Your task to perform on an android device: What's the weather today? Image 0: 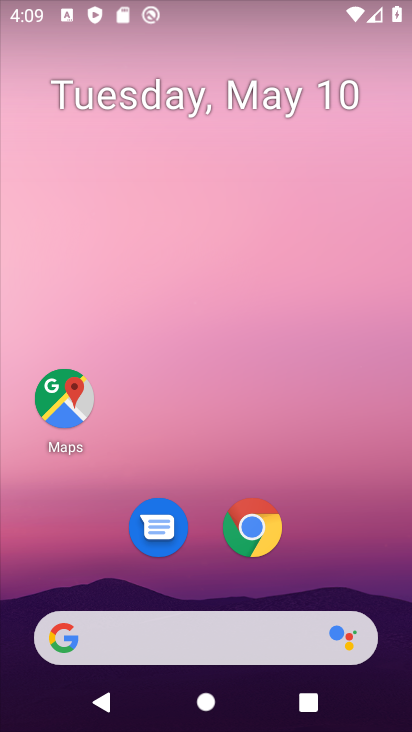
Step 0: click (94, 629)
Your task to perform on an android device: What's the weather today? Image 1: 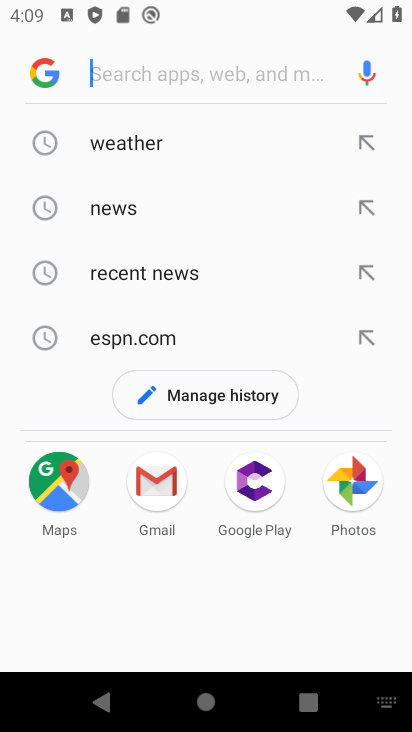
Step 1: click (116, 133)
Your task to perform on an android device: What's the weather today? Image 2: 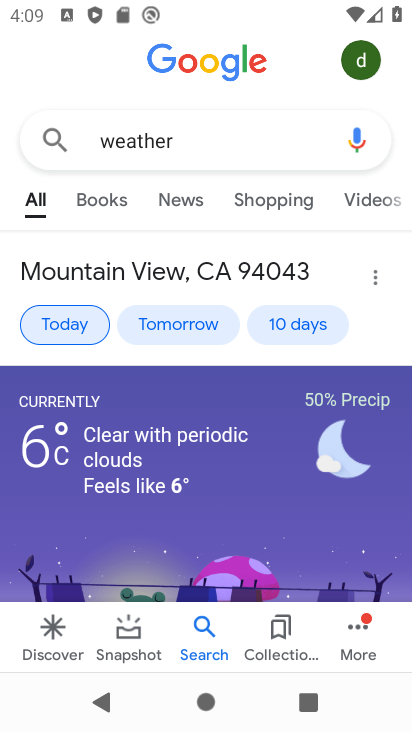
Step 2: task complete